Your task to perform on an android device: read, delete, or share a saved page in the chrome app Image 0: 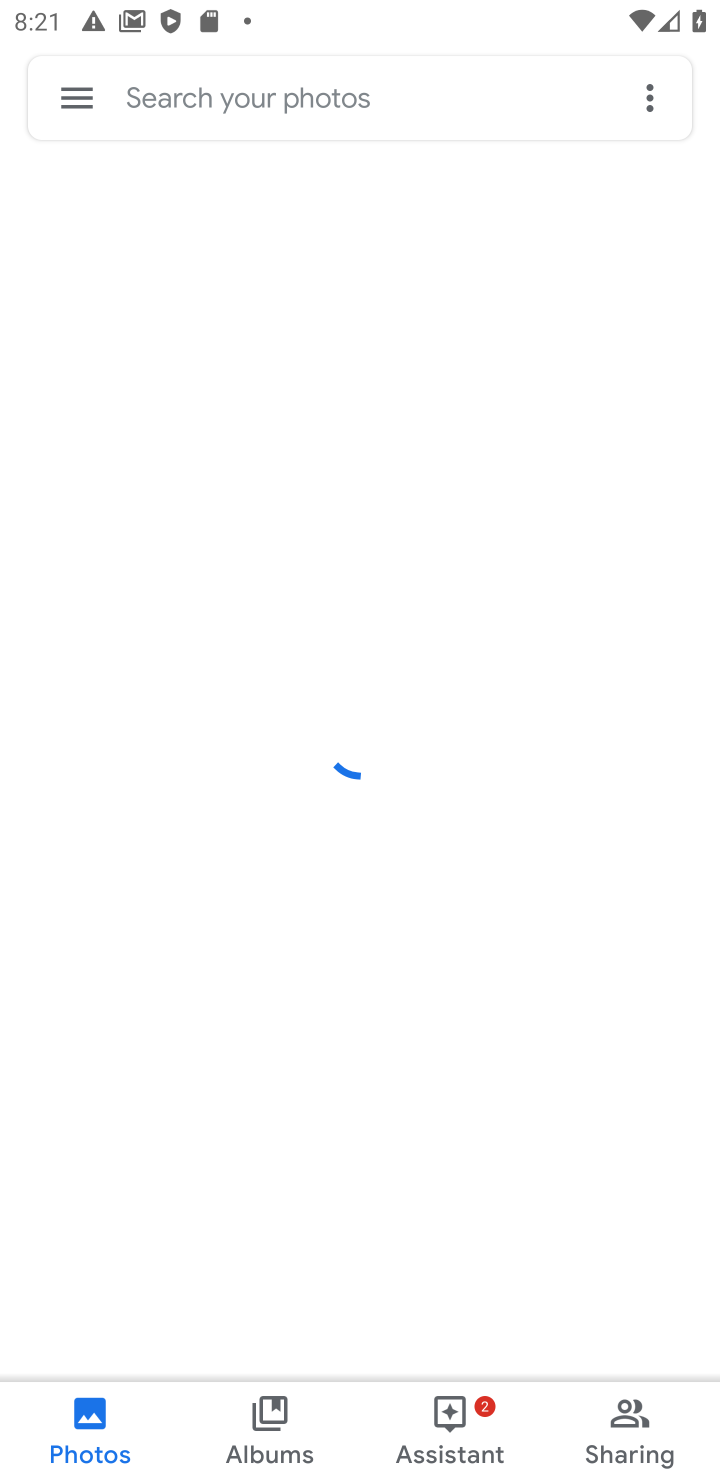
Step 0: press home button
Your task to perform on an android device: read, delete, or share a saved page in the chrome app Image 1: 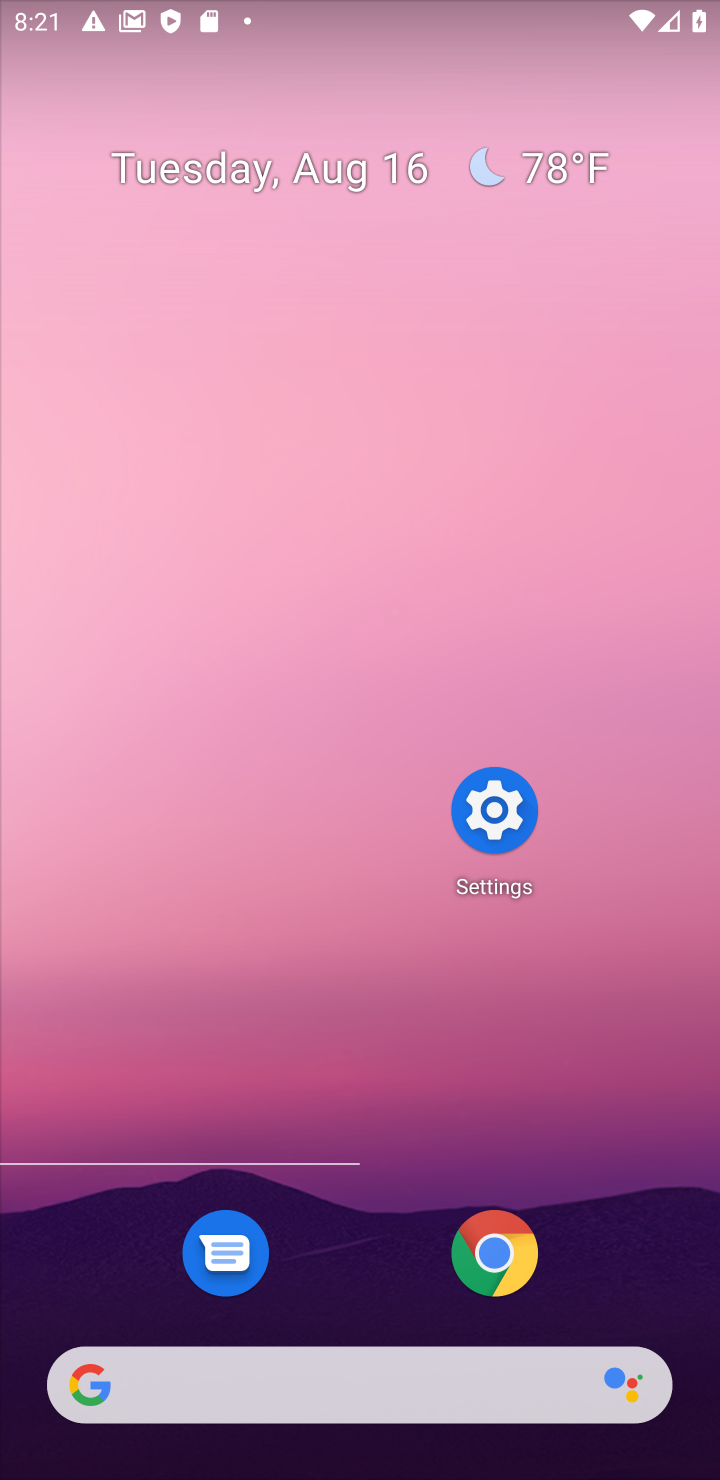
Step 1: click (493, 1241)
Your task to perform on an android device: read, delete, or share a saved page in the chrome app Image 2: 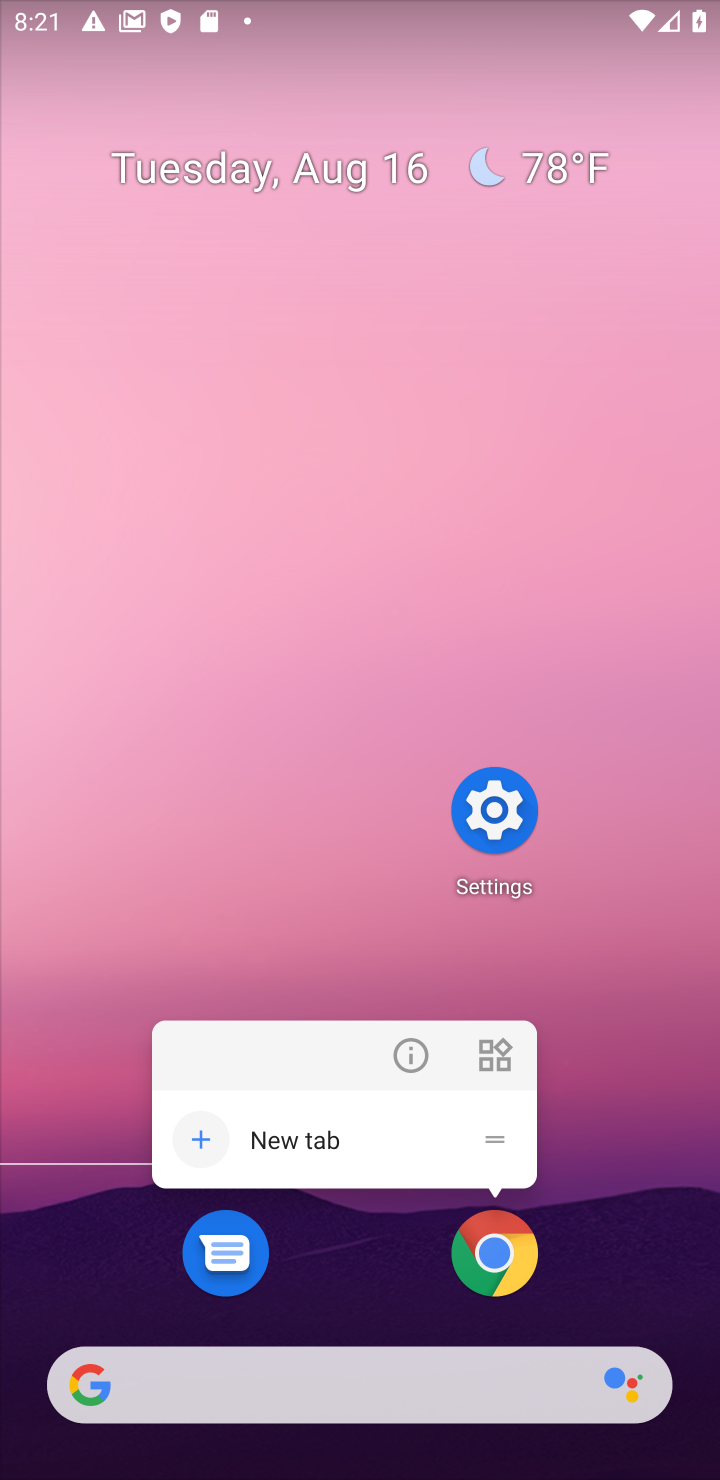
Step 2: click (494, 1235)
Your task to perform on an android device: read, delete, or share a saved page in the chrome app Image 3: 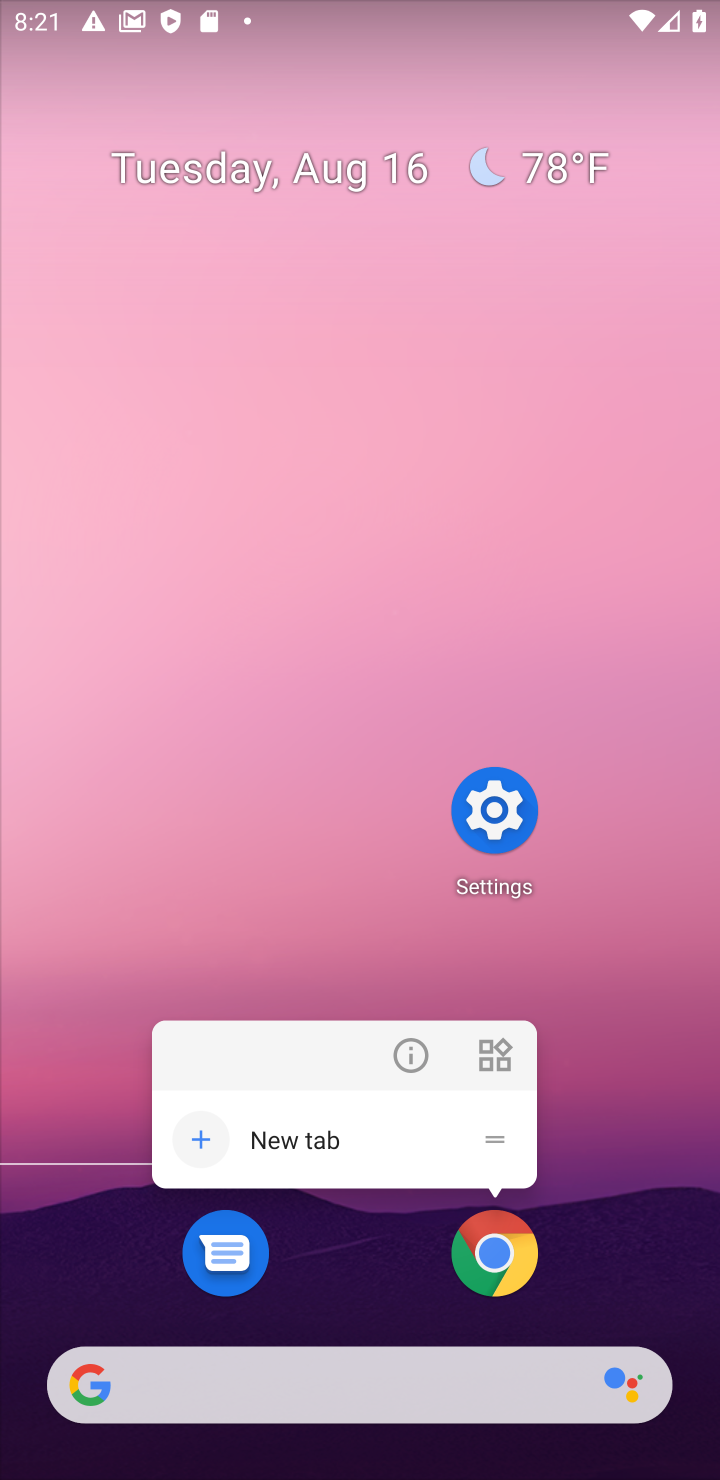
Step 3: click (494, 1233)
Your task to perform on an android device: read, delete, or share a saved page in the chrome app Image 4: 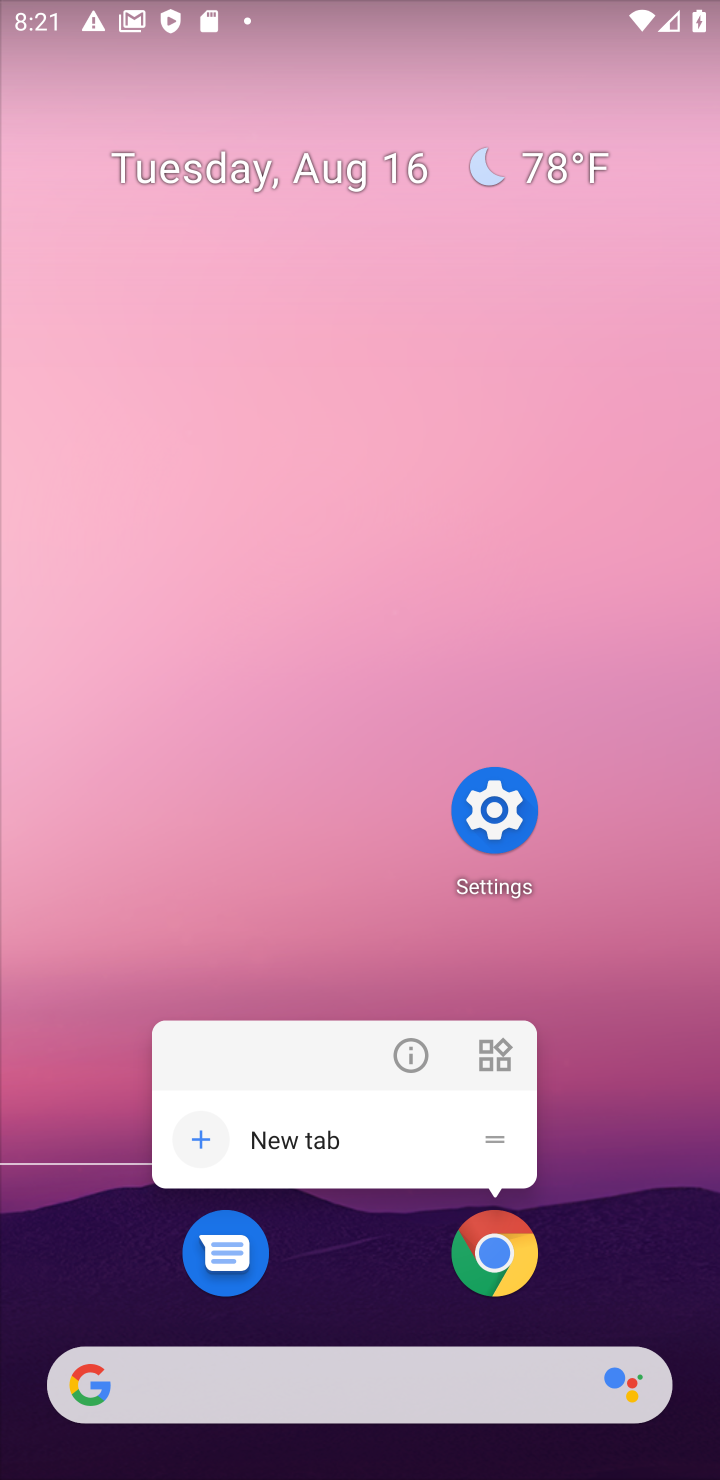
Step 4: click (494, 1233)
Your task to perform on an android device: read, delete, or share a saved page in the chrome app Image 5: 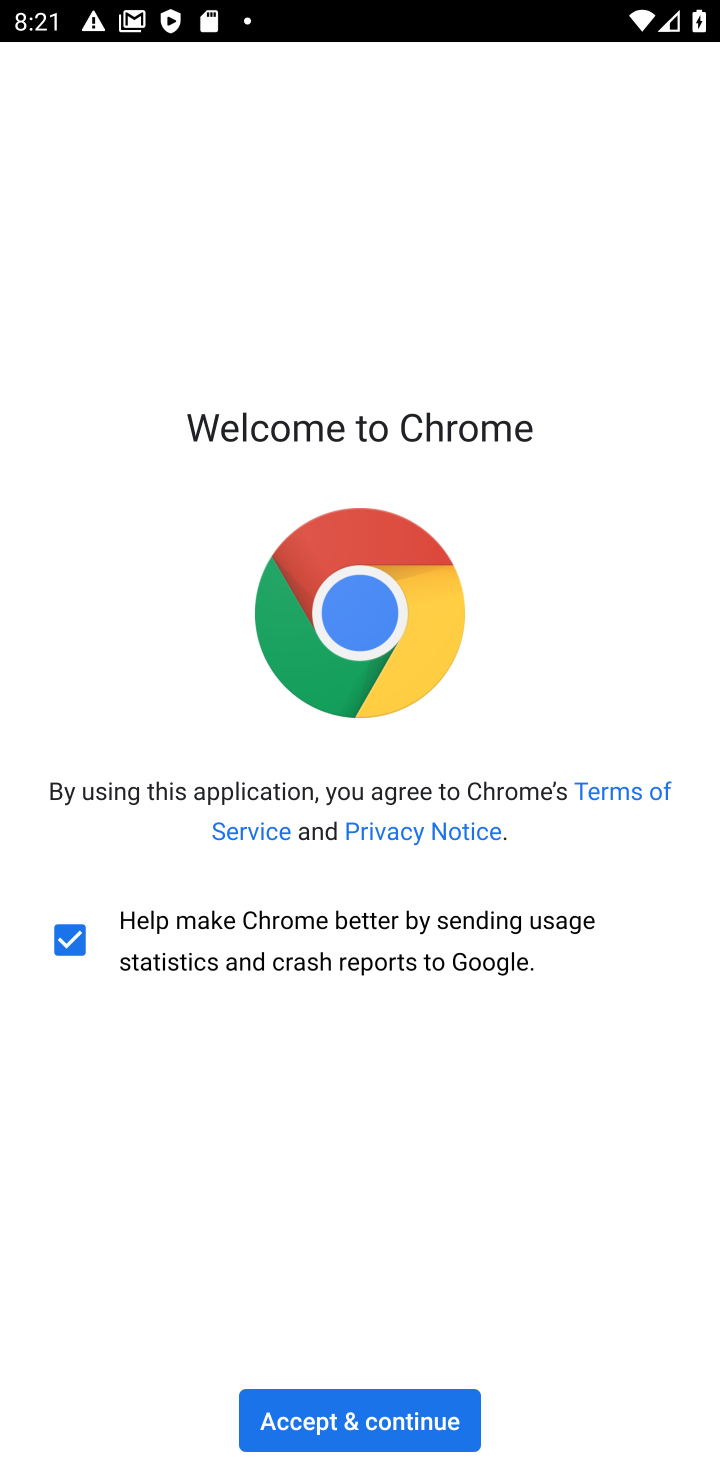
Step 5: click (354, 1434)
Your task to perform on an android device: read, delete, or share a saved page in the chrome app Image 6: 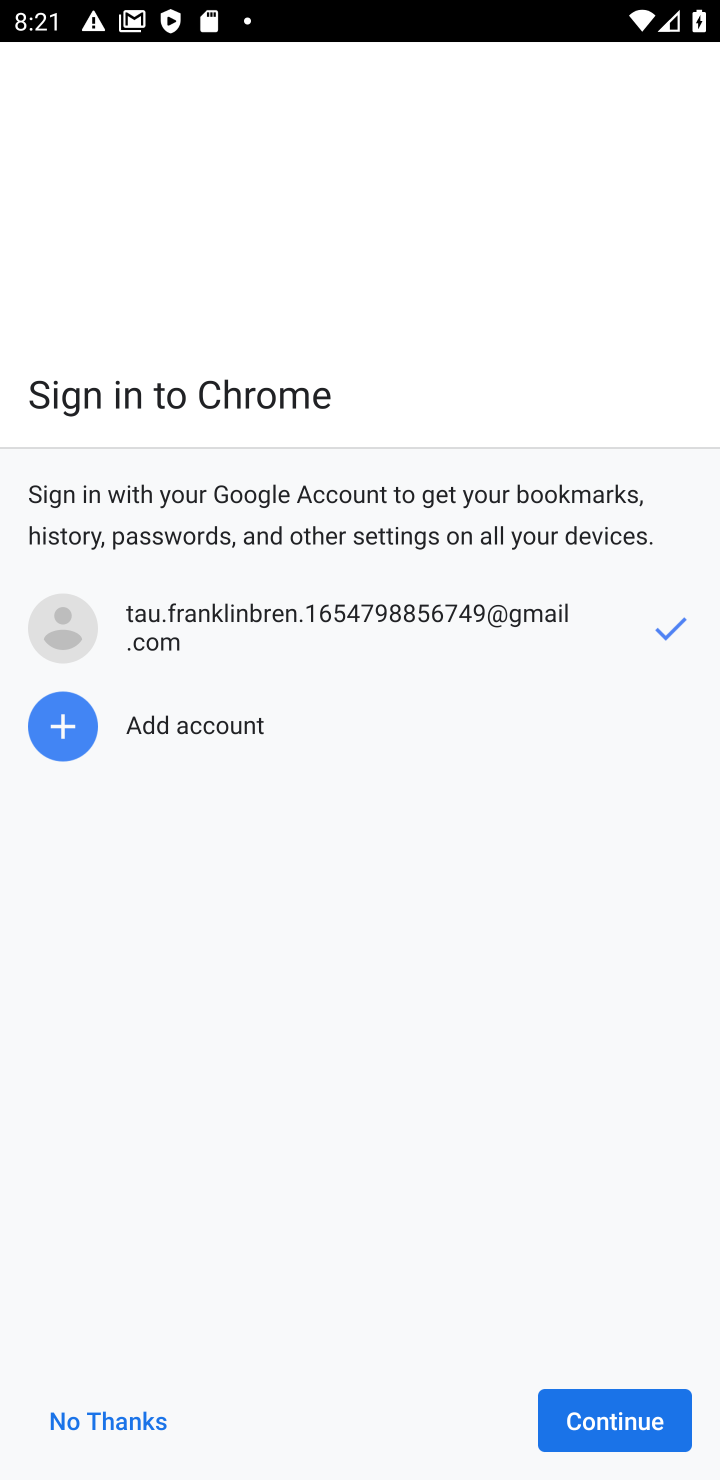
Step 6: click (614, 1413)
Your task to perform on an android device: read, delete, or share a saved page in the chrome app Image 7: 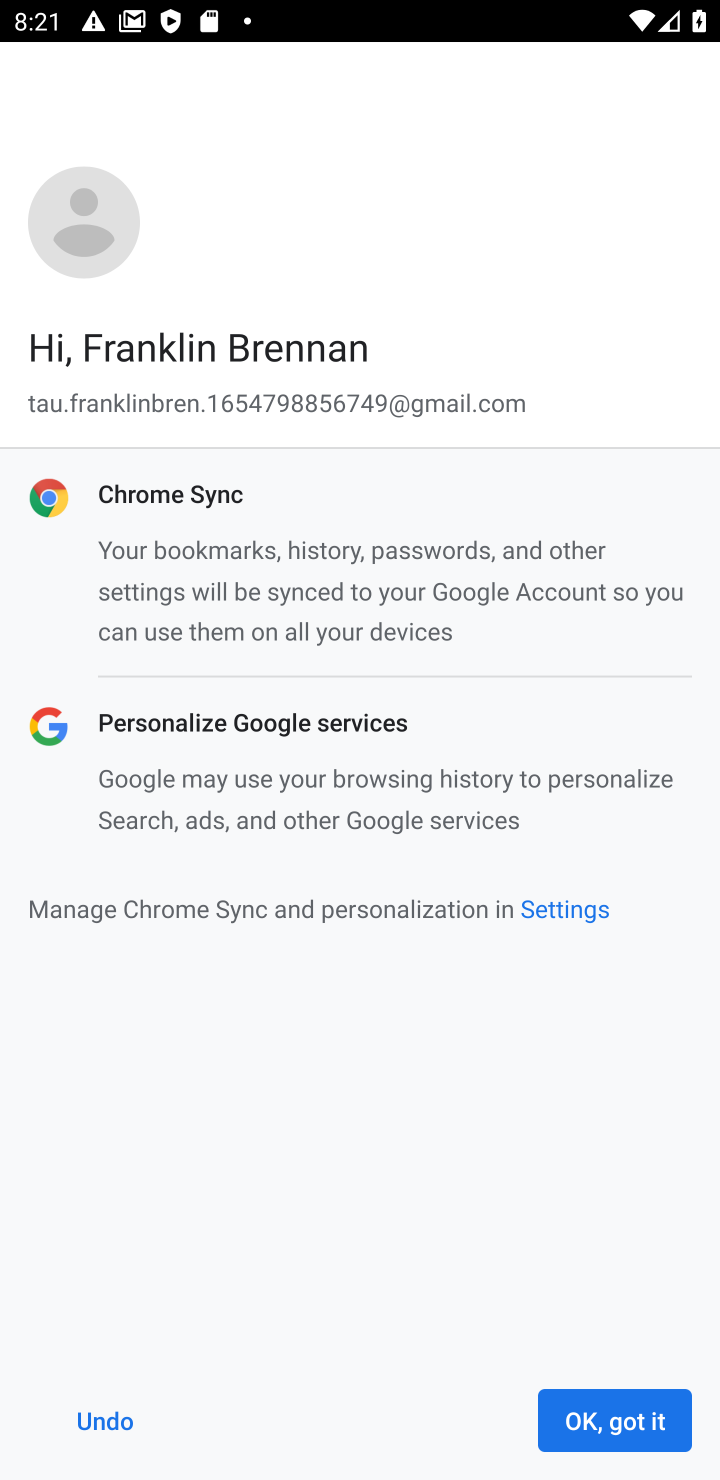
Step 7: click (618, 1406)
Your task to perform on an android device: read, delete, or share a saved page in the chrome app Image 8: 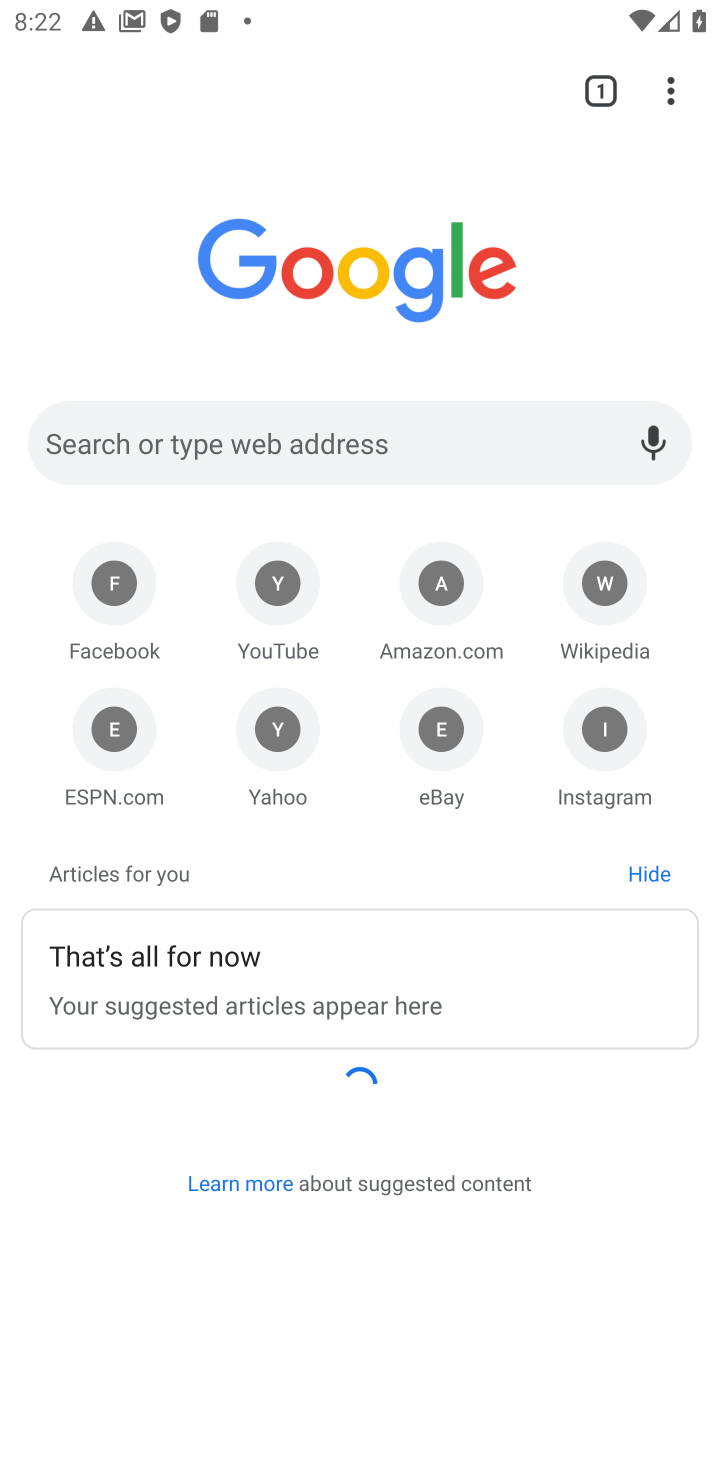
Step 8: drag from (674, 95) to (413, 604)
Your task to perform on an android device: read, delete, or share a saved page in the chrome app Image 9: 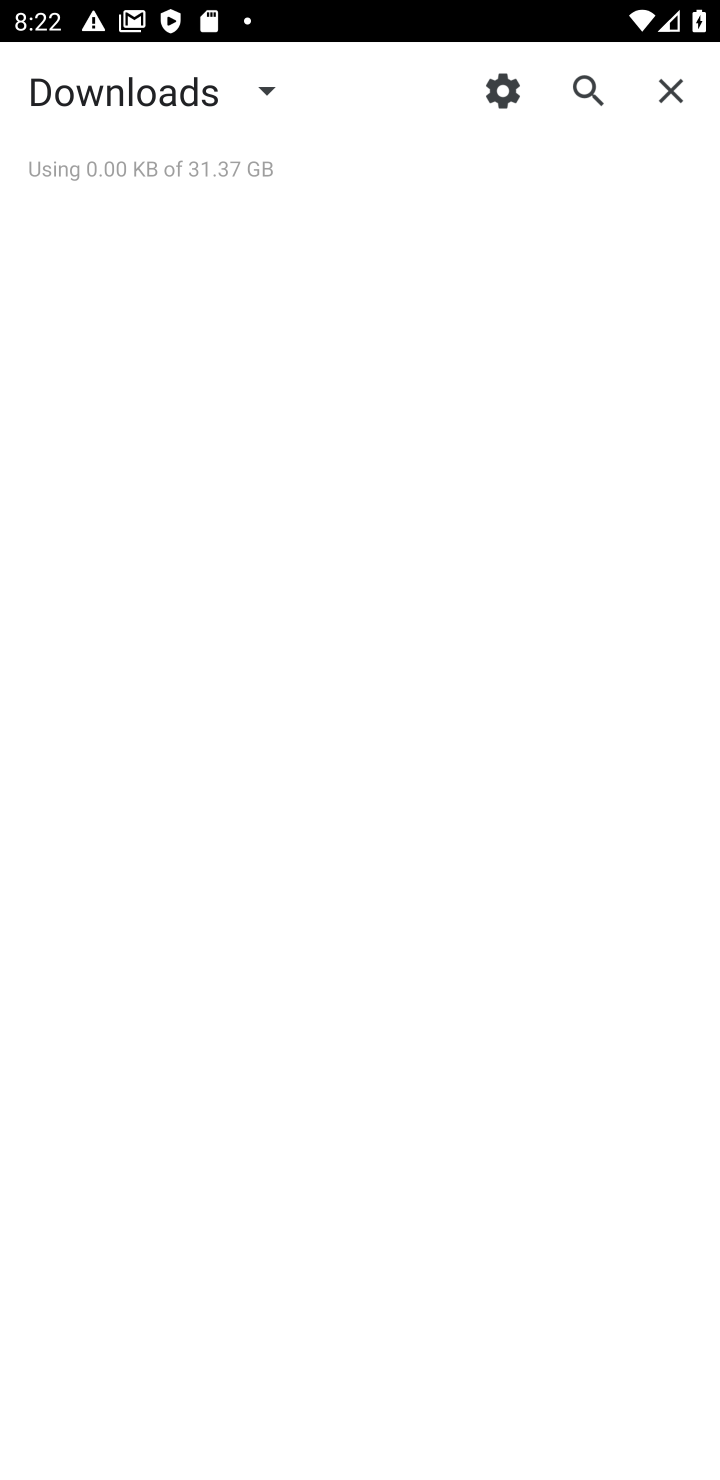
Step 9: click (258, 81)
Your task to perform on an android device: read, delete, or share a saved page in the chrome app Image 10: 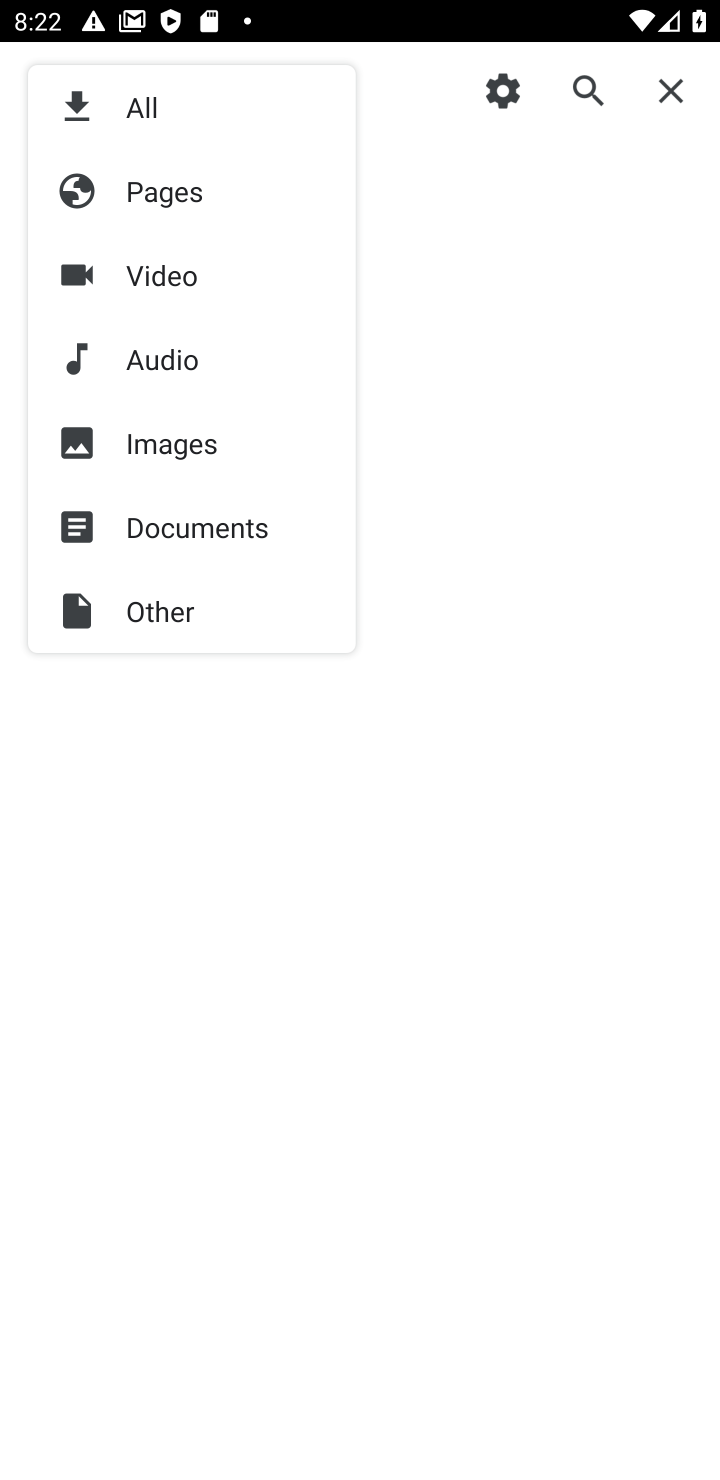
Step 10: click (164, 171)
Your task to perform on an android device: read, delete, or share a saved page in the chrome app Image 11: 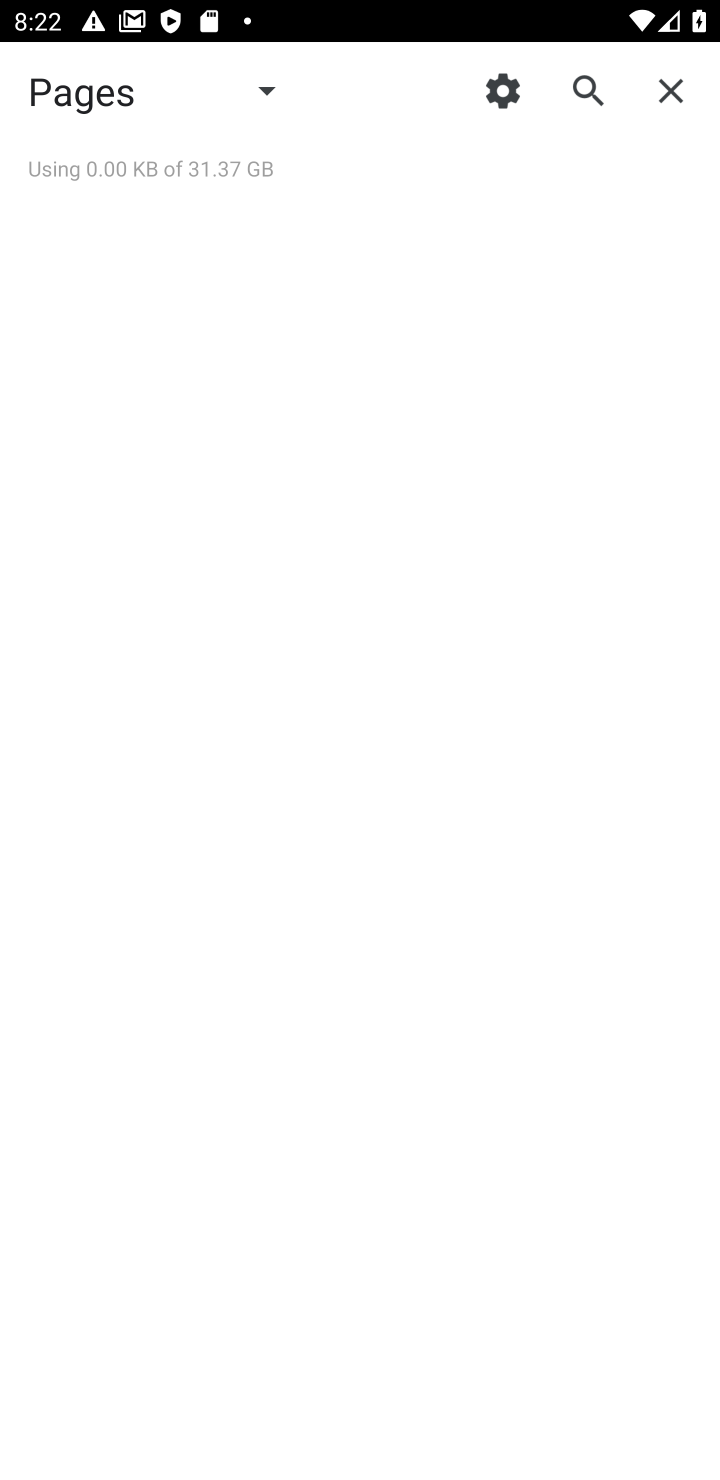
Step 11: task complete